Your task to perform on an android device: stop showing notifications on the lock screen Image 0: 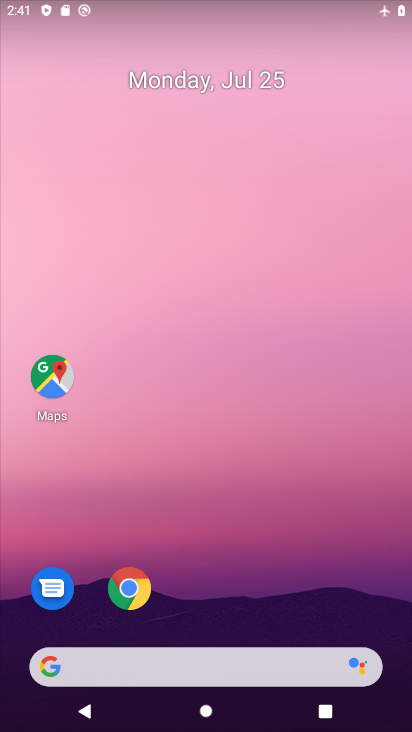
Step 0: drag from (218, 644) to (210, 298)
Your task to perform on an android device: stop showing notifications on the lock screen Image 1: 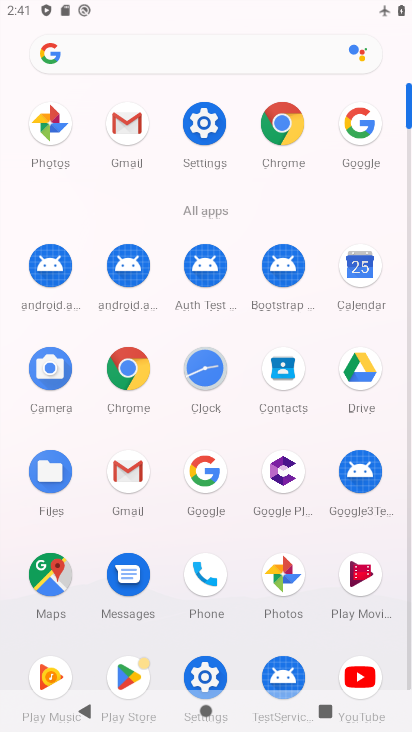
Step 1: click (203, 132)
Your task to perform on an android device: stop showing notifications on the lock screen Image 2: 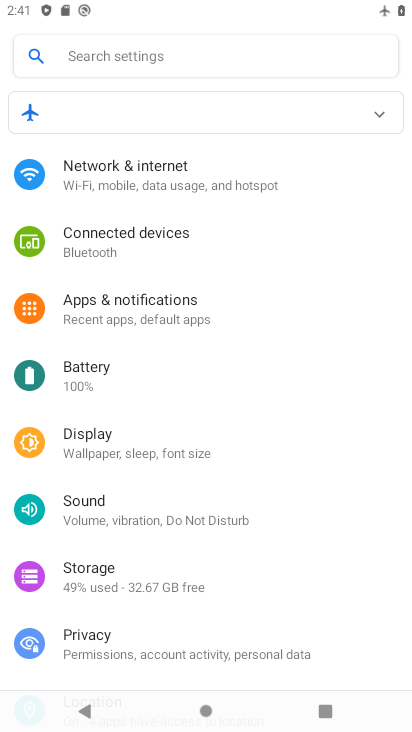
Step 2: click (125, 304)
Your task to perform on an android device: stop showing notifications on the lock screen Image 3: 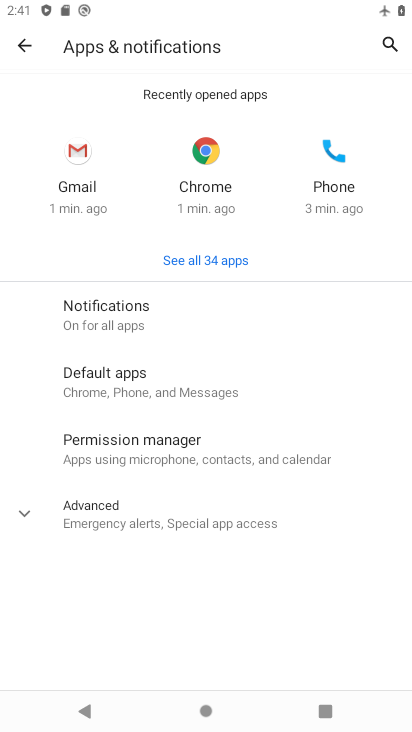
Step 3: click (110, 305)
Your task to perform on an android device: stop showing notifications on the lock screen Image 4: 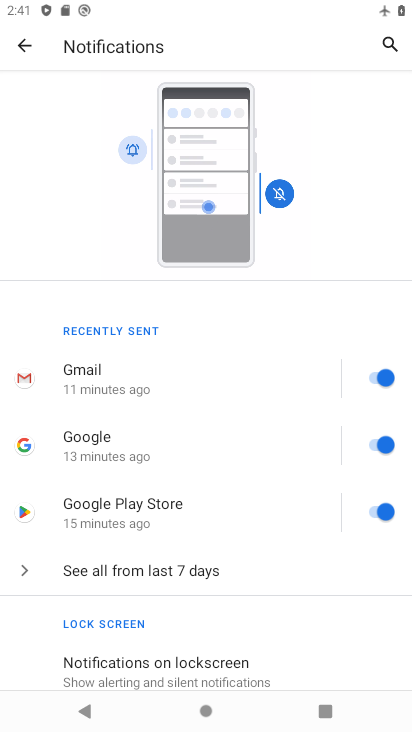
Step 4: drag from (219, 667) to (197, 347)
Your task to perform on an android device: stop showing notifications on the lock screen Image 5: 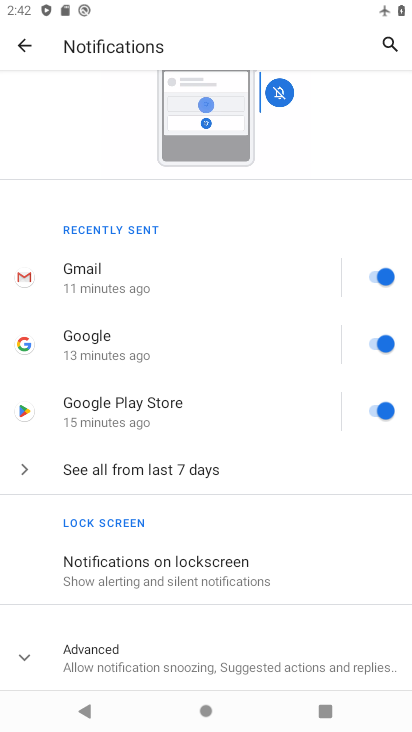
Step 5: click (177, 567)
Your task to perform on an android device: stop showing notifications on the lock screen Image 6: 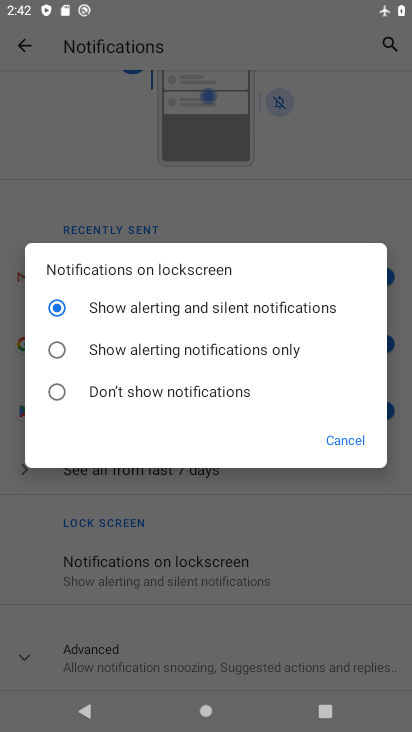
Step 6: click (49, 392)
Your task to perform on an android device: stop showing notifications on the lock screen Image 7: 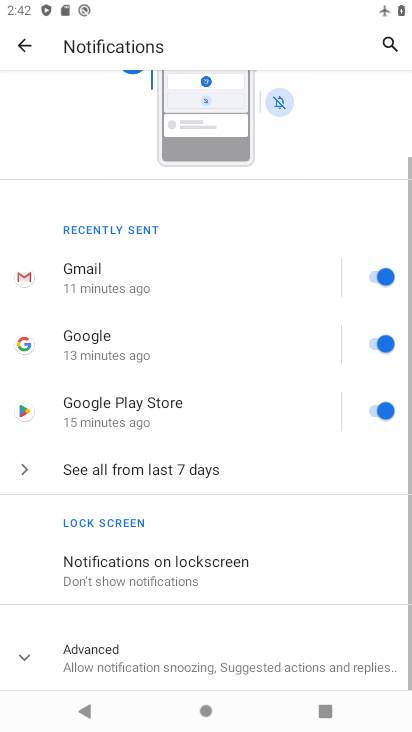
Step 7: task complete